Your task to perform on an android device: set default search engine in the chrome app Image 0: 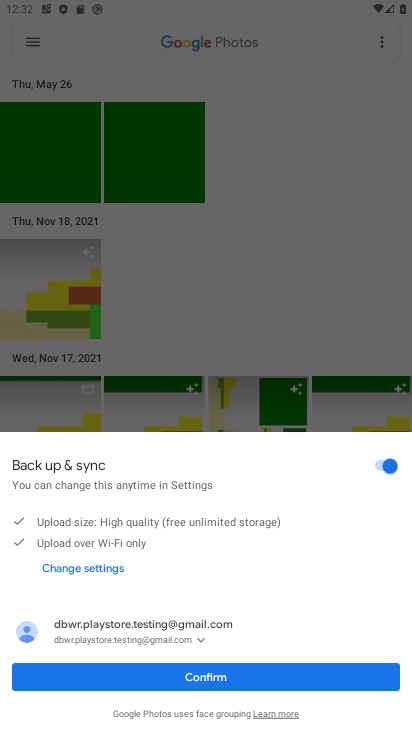
Step 0: press home button
Your task to perform on an android device: set default search engine in the chrome app Image 1: 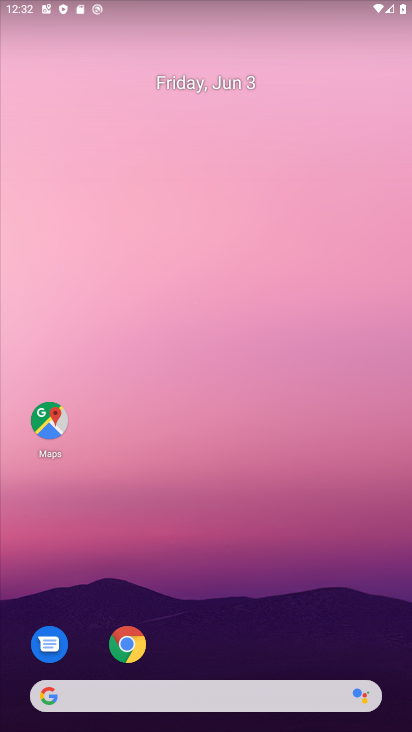
Step 1: click (131, 650)
Your task to perform on an android device: set default search engine in the chrome app Image 2: 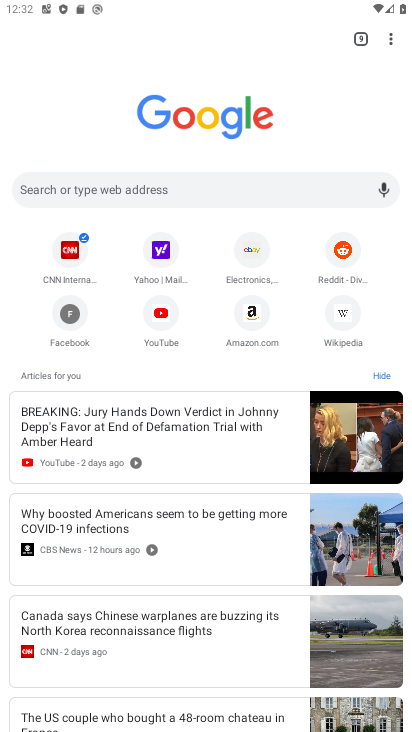
Step 2: click (391, 45)
Your task to perform on an android device: set default search engine in the chrome app Image 3: 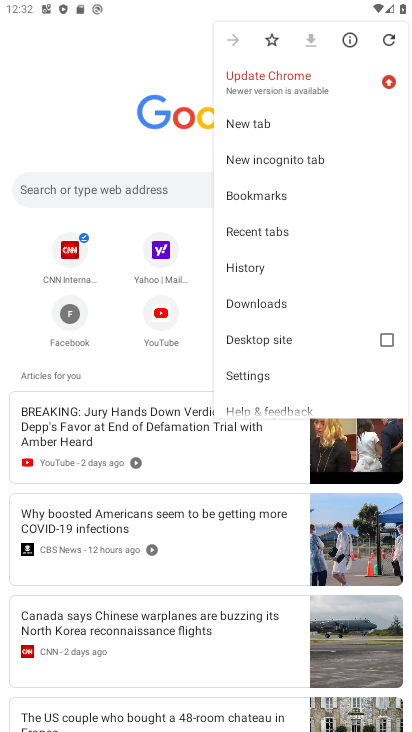
Step 3: click (262, 374)
Your task to perform on an android device: set default search engine in the chrome app Image 4: 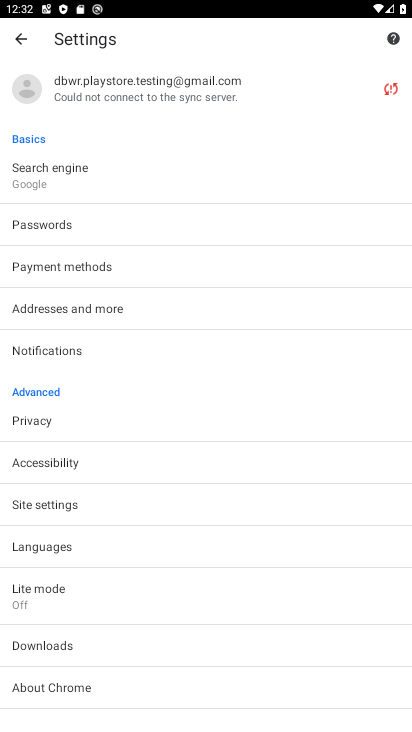
Step 4: click (56, 169)
Your task to perform on an android device: set default search engine in the chrome app Image 5: 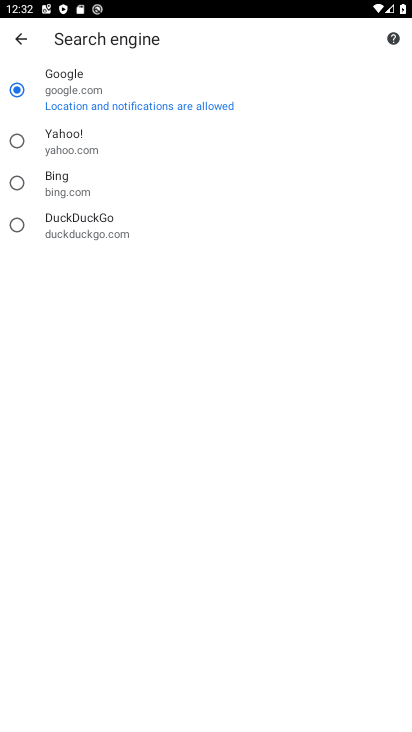
Step 5: click (15, 142)
Your task to perform on an android device: set default search engine in the chrome app Image 6: 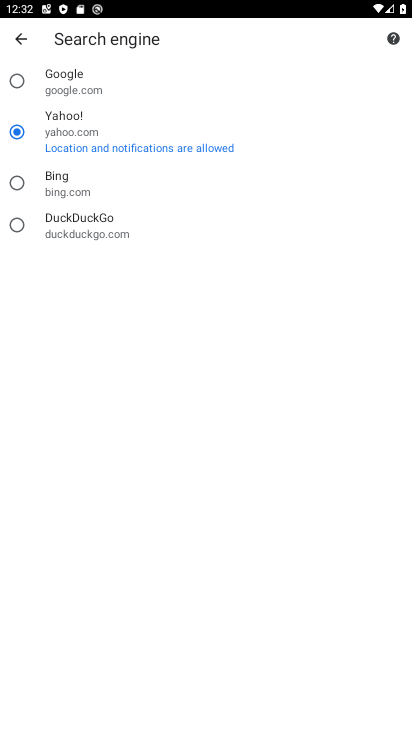
Step 6: task complete